Your task to perform on an android device: turn on location history Image 0: 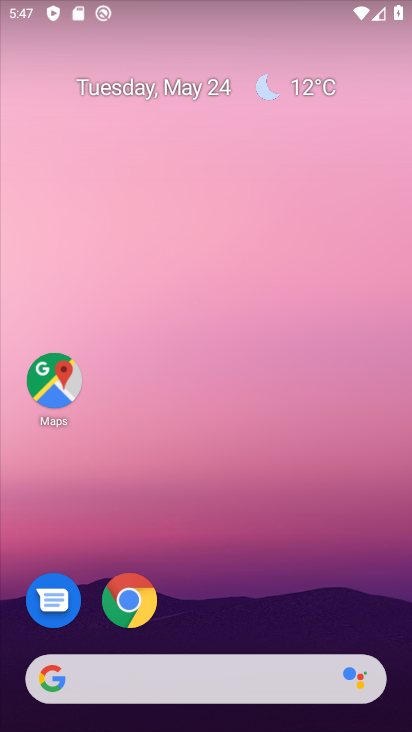
Step 0: drag from (242, 680) to (258, 47)
Your task to perform on an android device: turn on location history Image 1: 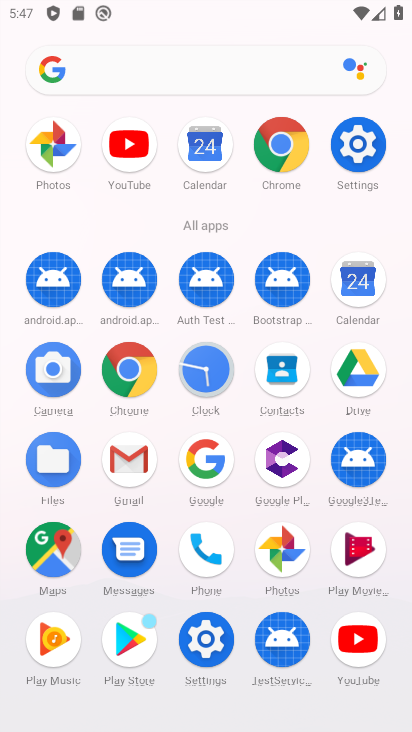
Step 1: click (369, 153)
Your task to perform on an android device: turn on location history Image 2: 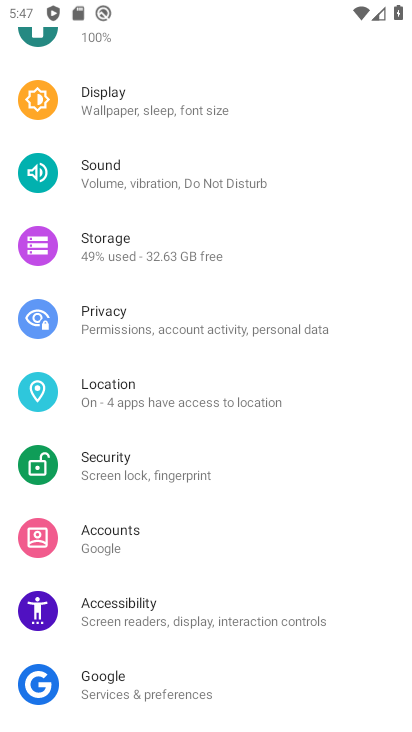
Step 2: drag from (223, 671) to (258, 117)
Your task to perform on an android device: turn on location history Image 3: 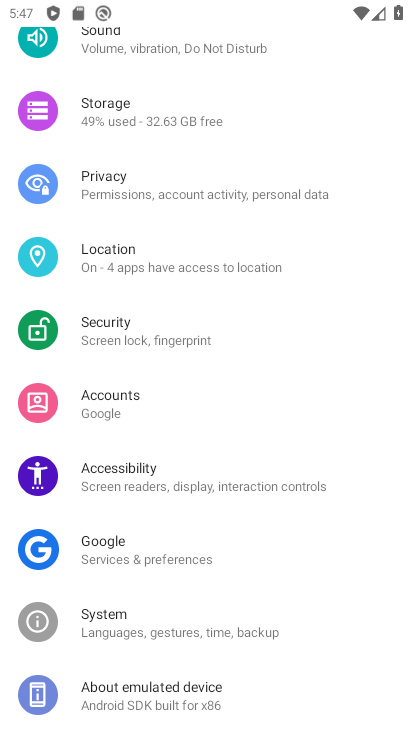
Step 3: click (151, 256)
Your task to perform on an android device: turn on location history Image 4: 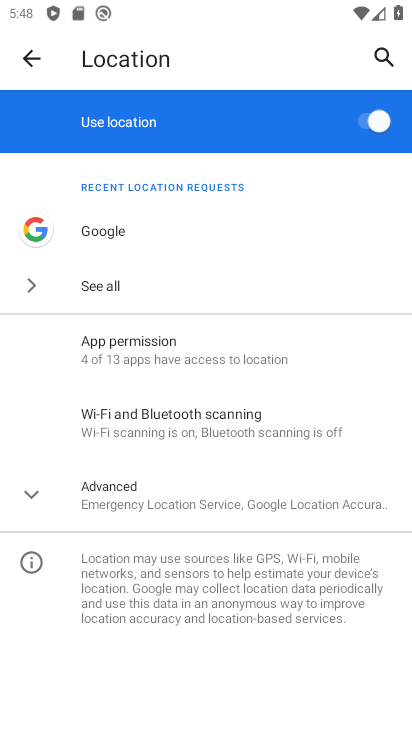
Step 4: click (195, 495)
Your task to perform on an android device: turn on location history Image 5: 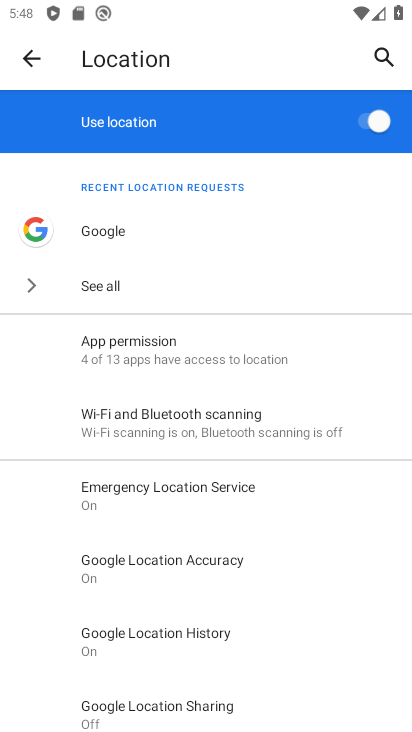
Step 5: click (179, 641)
Your task to perform on an android device: turn on location history Image 6: 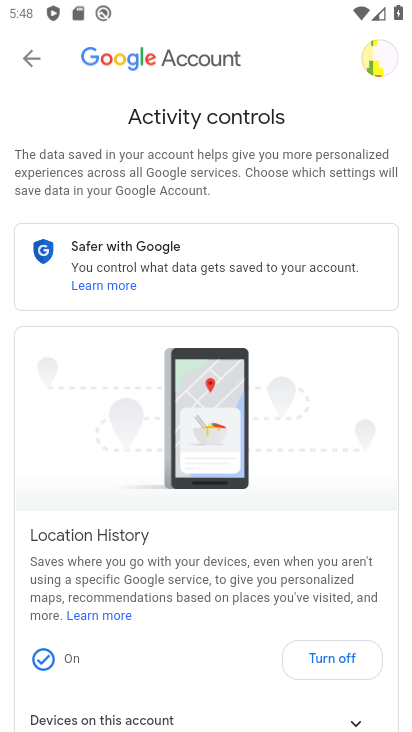
Step 6: task complete